Your task to perform on an android device: Open privacy settings Image 0: 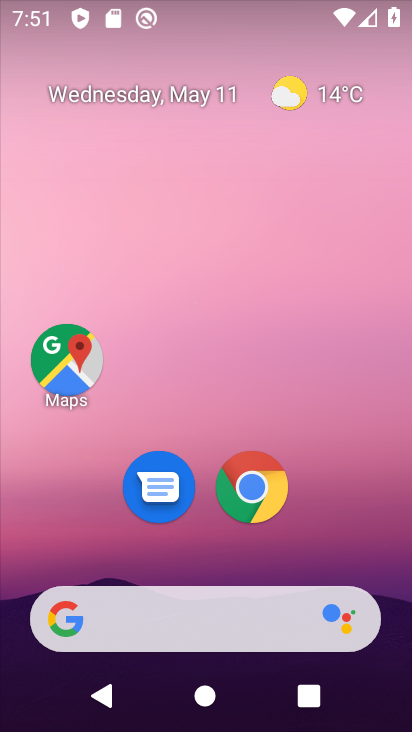
Step 0: drag from (221, 728) to (231, 86)
Your task to perform on an android device: Open privacy settings Image 1: 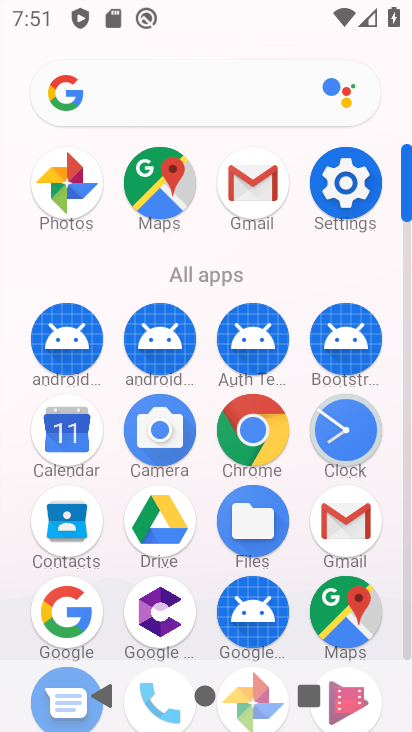
Step 1: click (341, 182)
Your task to perform on an android device: Open privacy settings Image 2: 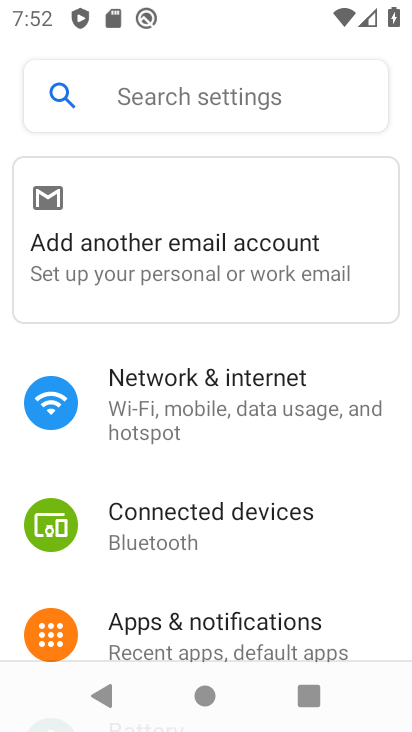
Step 2: drag from (190, 604) to (195, 227)
Your task to perform on an android device: Open privacy settings Image 3: 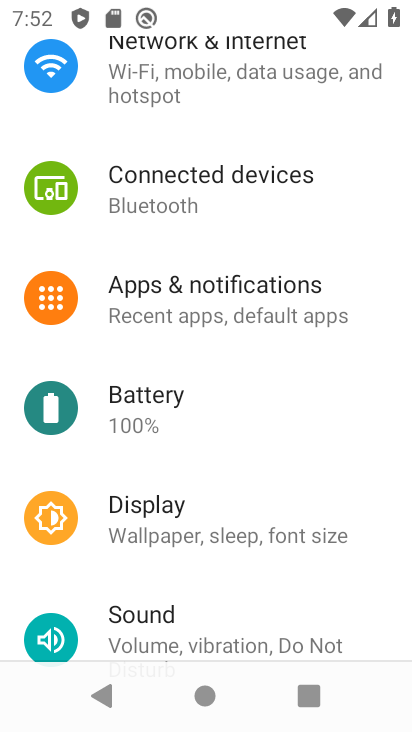
Step 3: drag from (188, 608) to (199, 267)
Your task to perform on an android device: Open privacy settings Image 4: 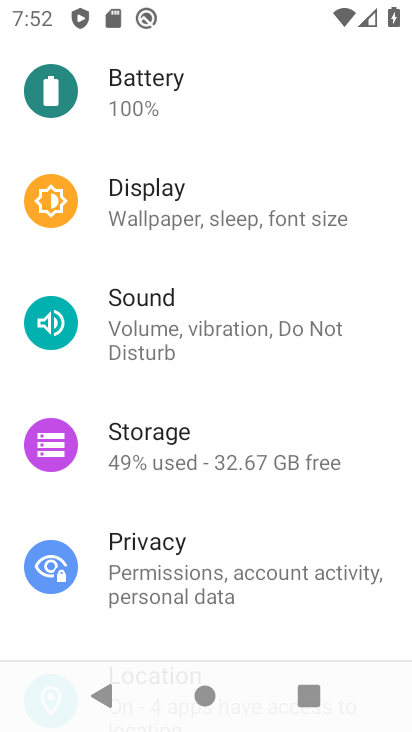
Step 4: click (150, 554)
Your task to perform on an android device: Open privacy settings Image 5: 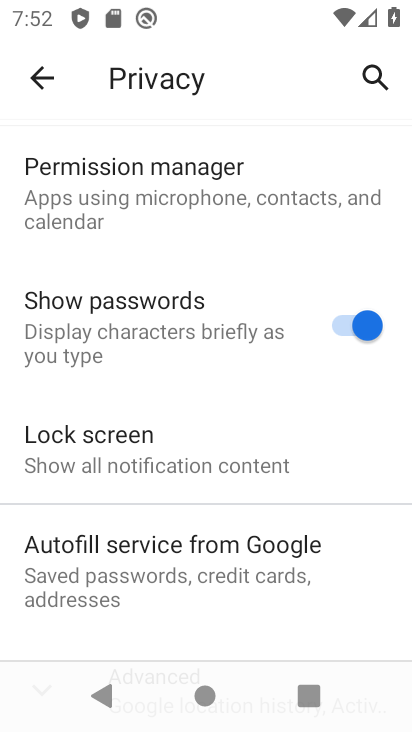
Step 5: task complete